Your task to perform on an android device: turn off data saver in the chrome app Image 0: 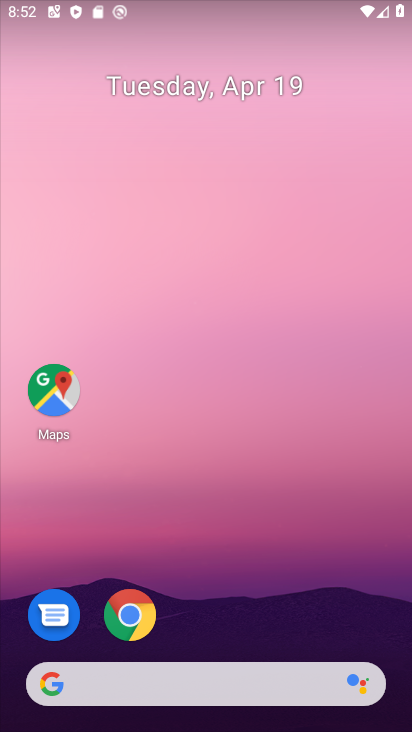
Step 0: click (154, 603)
Your task to perform on an android device: turn off data saver in the chrome app Image 1: 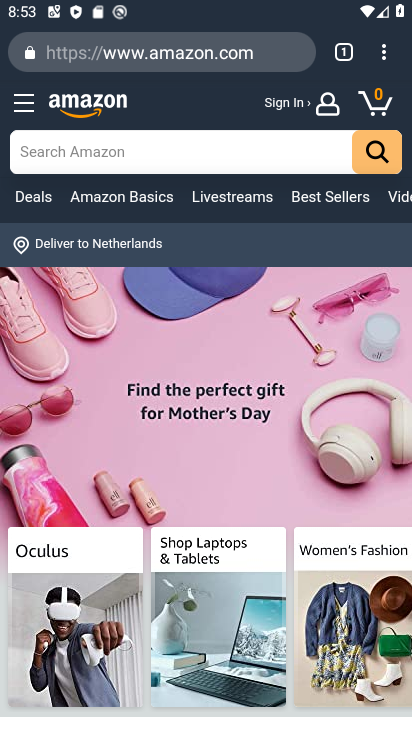
Step 1: click (387, 63)
Your task to perform on an android device: turn off data saver in the chrome app Image 2: 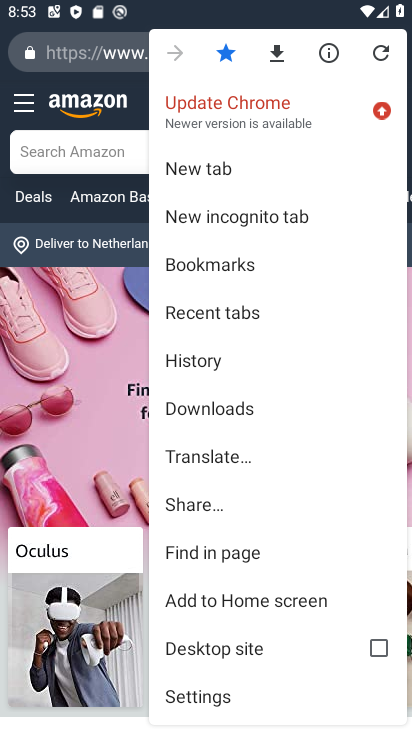
Step 2: click (206, 689)
Your task to perform on an android device: turn off data saver in the chrome app Image 3: 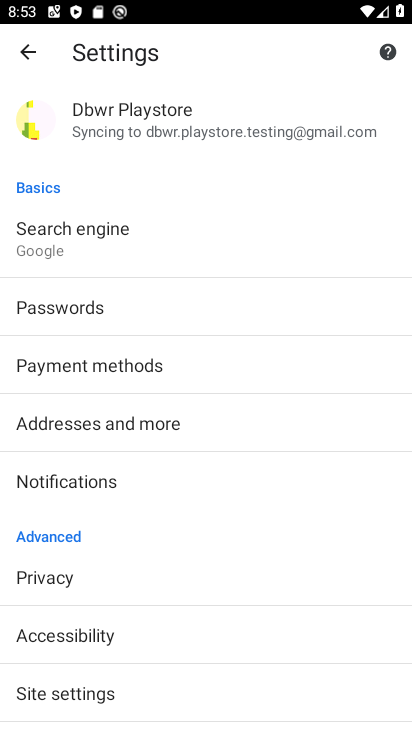
Step 3: click (206, 689)
Your task to perform on an android device: turn off data saver in the chrome app Image 4: 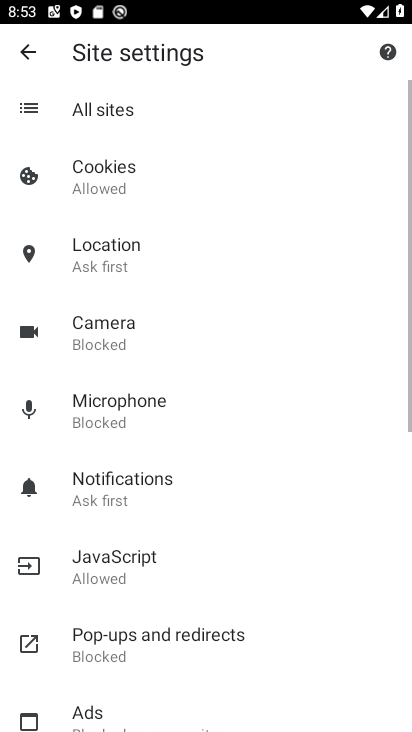
Step 4: click (39, 41)
Your task to perform on an android device: turn off data saver in the chrome app Image 5: 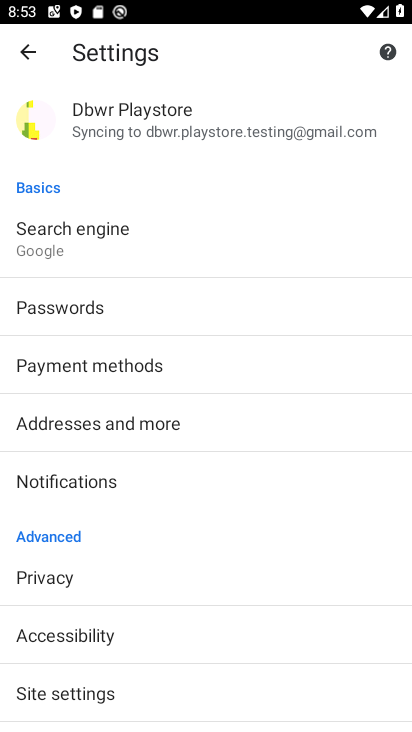
Step 5: drag from (203, 693) to (223, 107)
Your task to perform on an android device: turn off data saver in the chrome app Image 6: 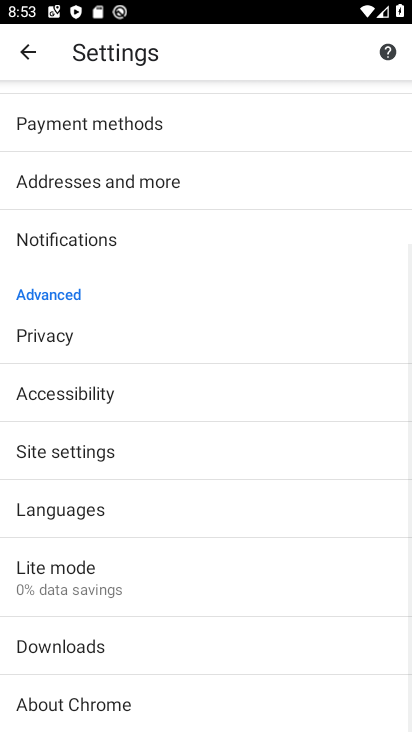
Step 6: click (58, 569)
Your task to perform on an android device: turn off data saver in the chrome app Image 7: 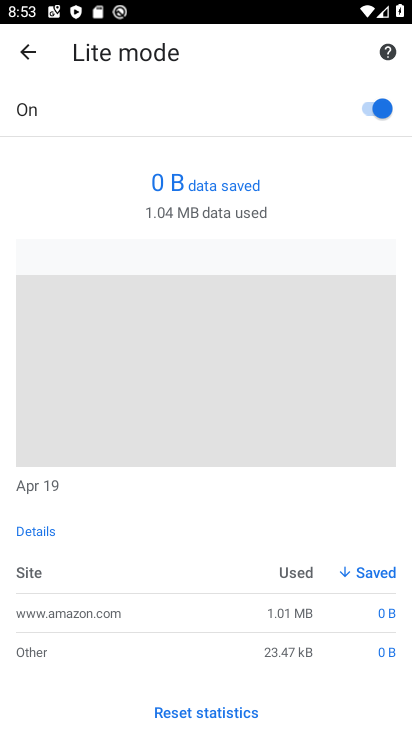
Step 7: click (369, 110)
Your task to perform on an android device: turn off data saver in the chrome app Image 8: 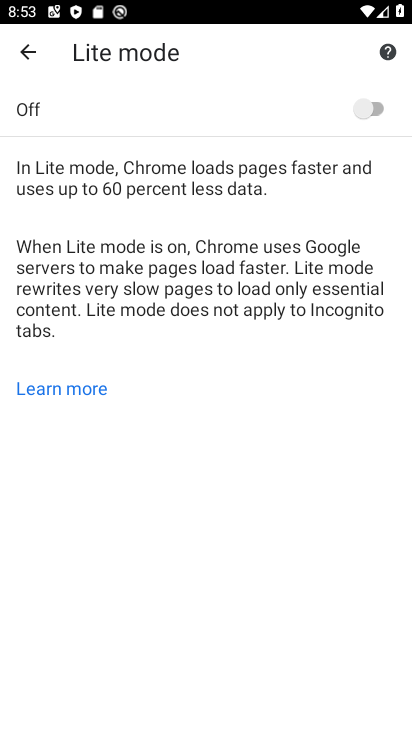
Step 8: task complete